Your task to perform on an android device: turn pop-ups off in chrome Image 0: 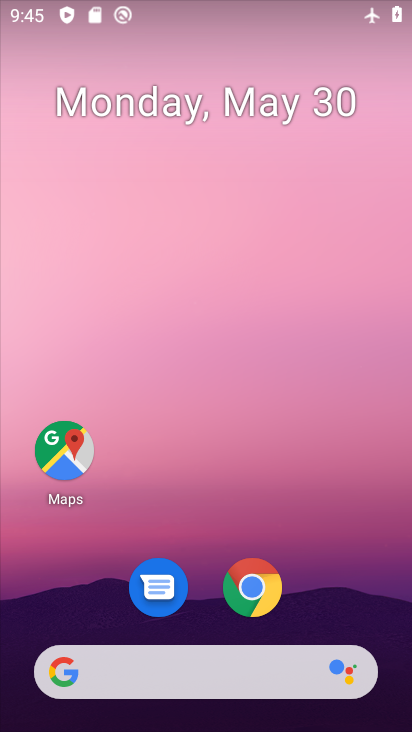
Step 0: drag from (356, 553) to (198, 0)
Your task to perform on an android device: turn pop-ups off in chrome Image 1: 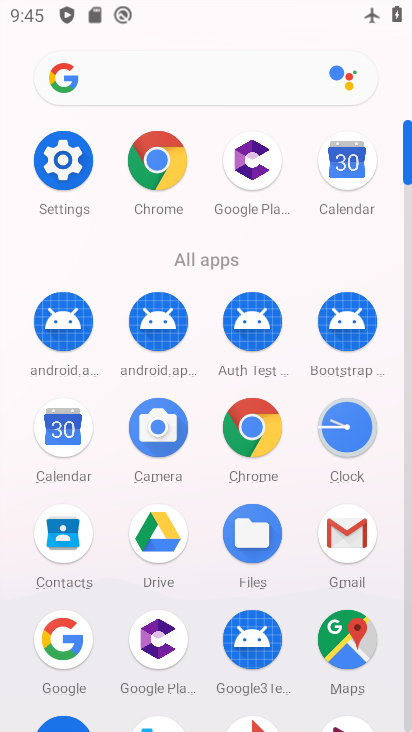
Step 1: drag from (15, 604) to (16, 212)
Your task to perform on an android device: turn pop-ups off in chrome Image 2: 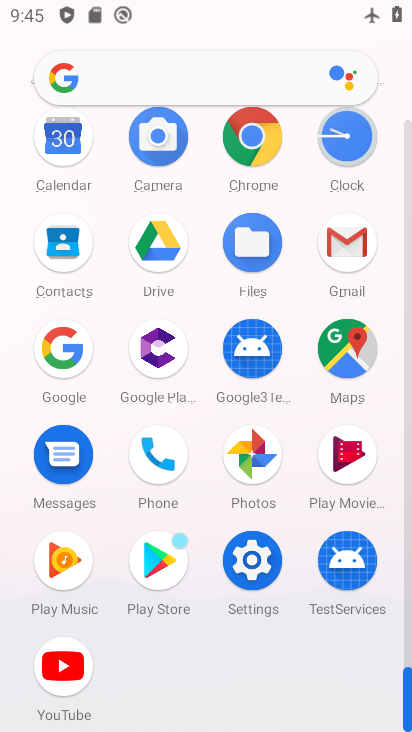
Step 2: click (248, 134)
Your task to perform on an android device: turn pop-ups off in chrome Image 3: 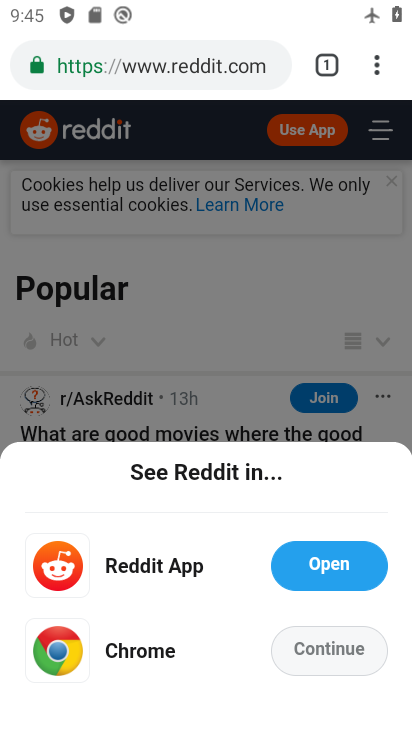
Step 3: drag from (377, 53) to (203, 631)
Your task to perform on an android device: turn pop-ups off in chrome Image 4: 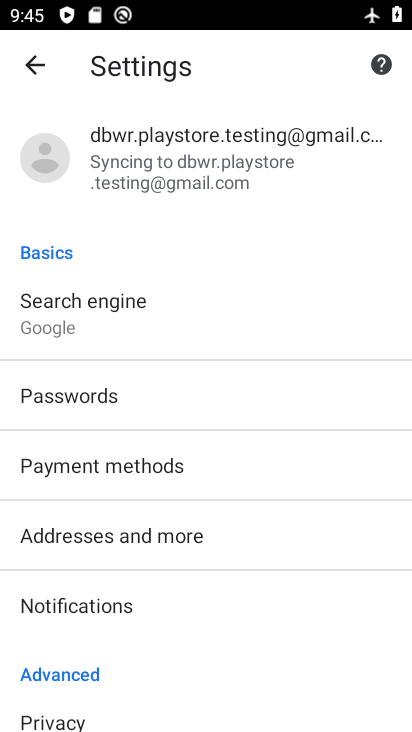
Step 4: drag from (242, 561) to (260, 199)
Your task to perform on an android device: turn pop-ups off in chrome Image 5: 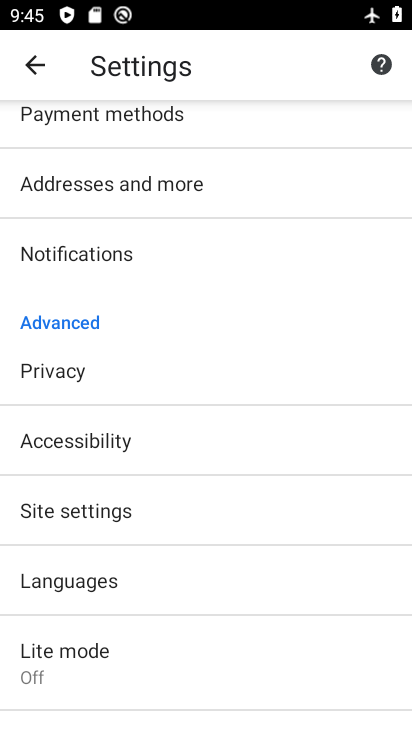
Step 5: click (160, 515)
Your task to perform on an android device: turn pop-ups off in chrome Image 6: 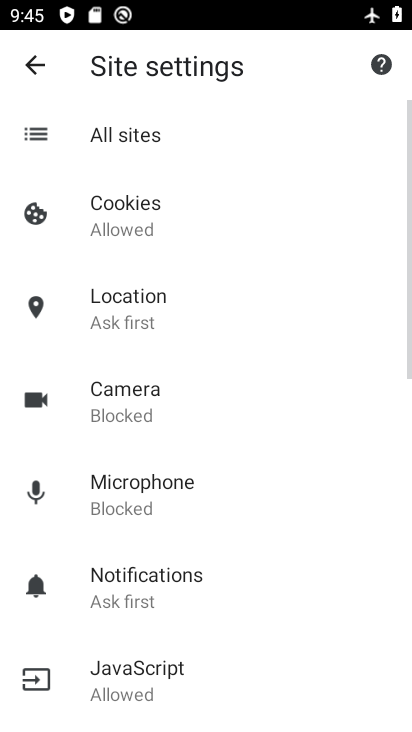
Step 6: drag from (255, 549) to (286, 147)
Your task to perform on an android device: turn pop-ups off in chrome Image 7: 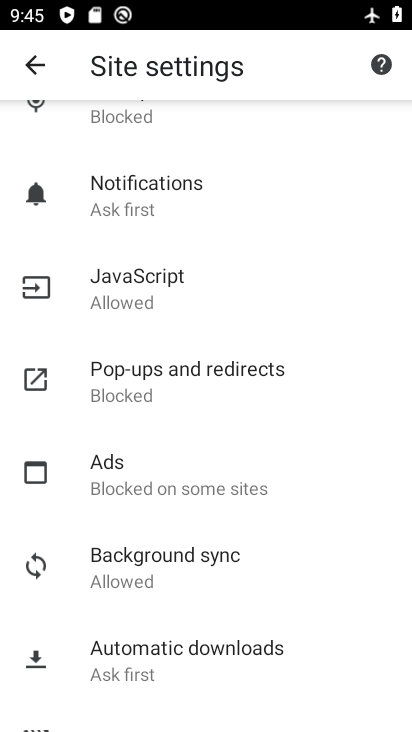
Step 7: drag from (222, 586) to (280, 203)
Your task to perform on an android device: turn pop-ups off in chrome Image 8: 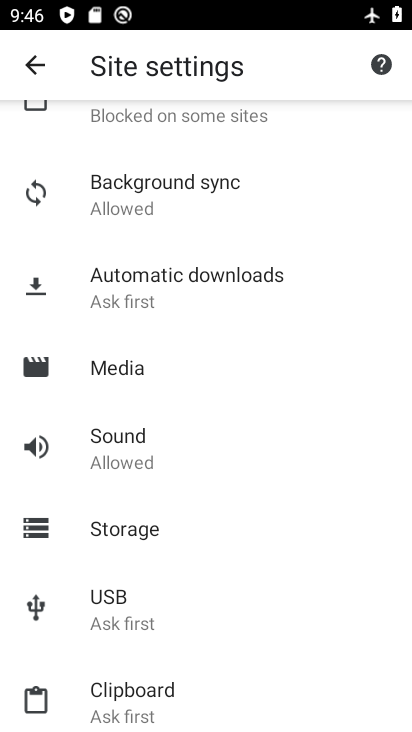
Step 8: drag from (186, 657) to (251, 225)
Your task to perform on an android device: turn pop-ups off in chrome Image 9: 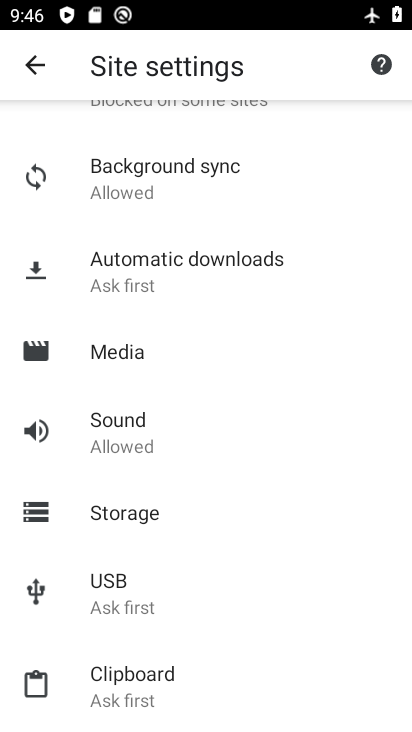
Step 9: drag from (262, 300) to (233, 659)
Your task to perform on an android device: turn pop-ups off in chrome Image 10: 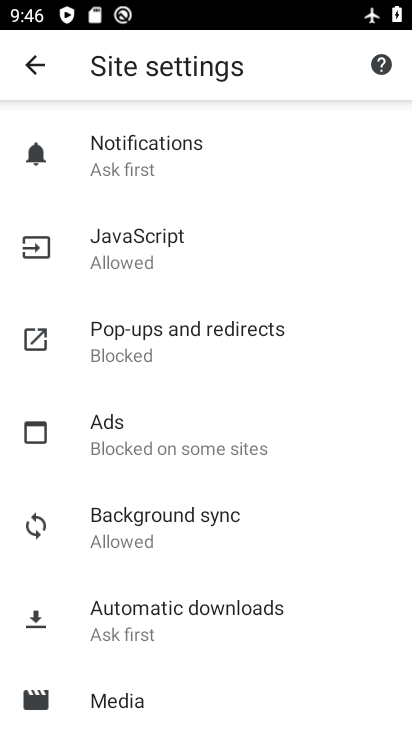
Step 10: click (207, 341)
Your task to perform on an android device: turn pop-ups off in chrome Image 11: 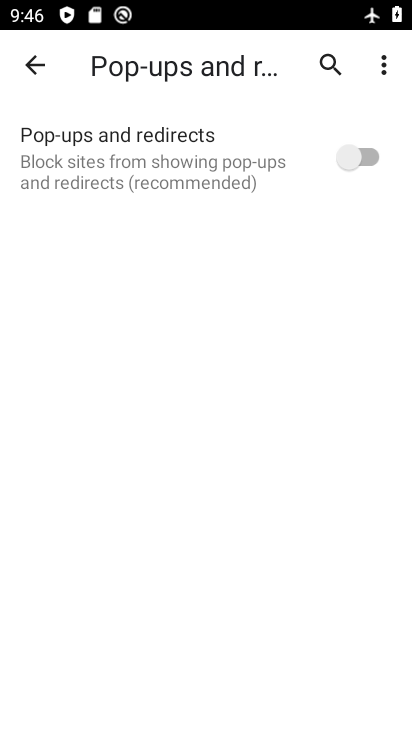
Step 11: task complete